Your task to perform on an android device: set an alarm Image 0: 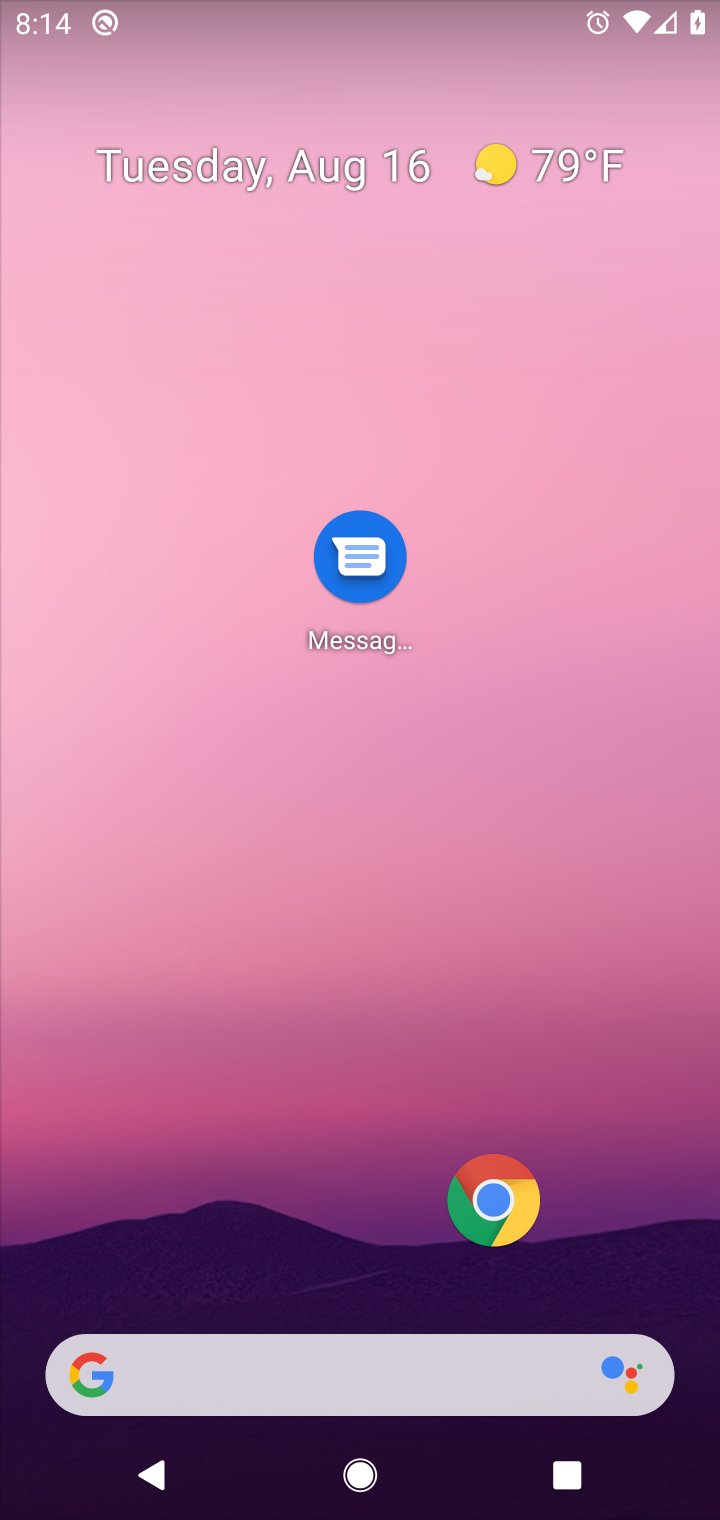
Step 0: drag from (55, 1445) to (491, 595)
Your task to perform on an android device: set an alarm Image 1: 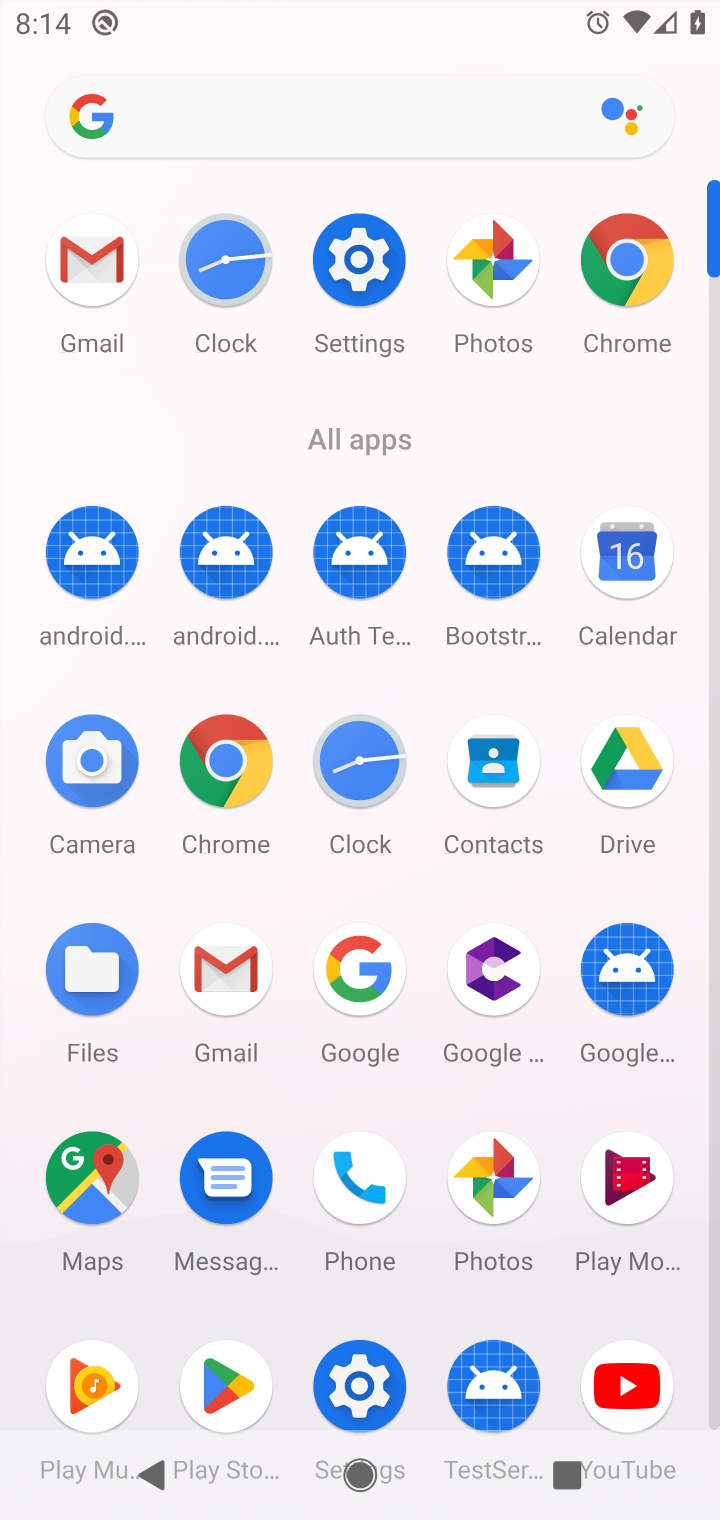
Step 1: click (376, 774)
Your task to perform on an android device: set an alarm Image 2: 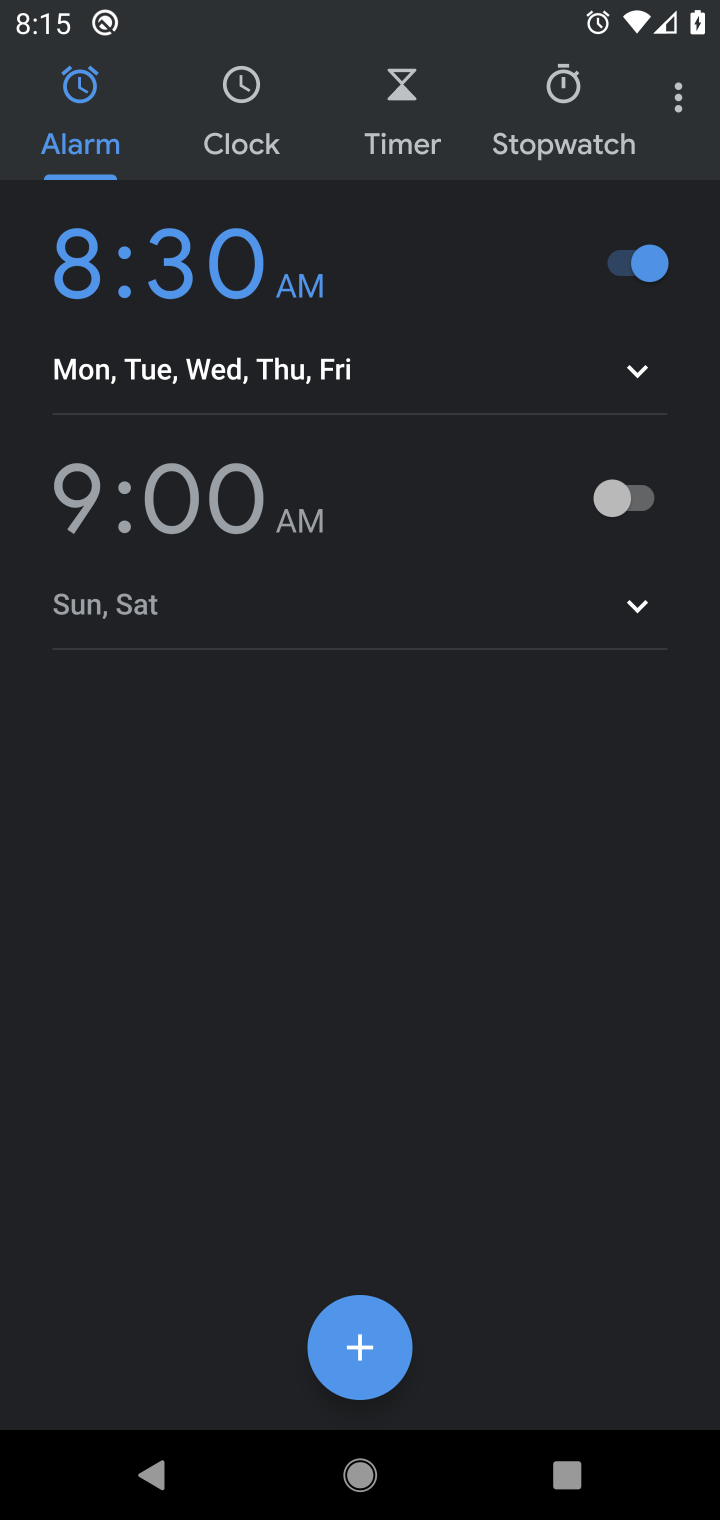
Step 2: task complete